Your task to perform on an android device: turn off translation in the chrome app Image 0: 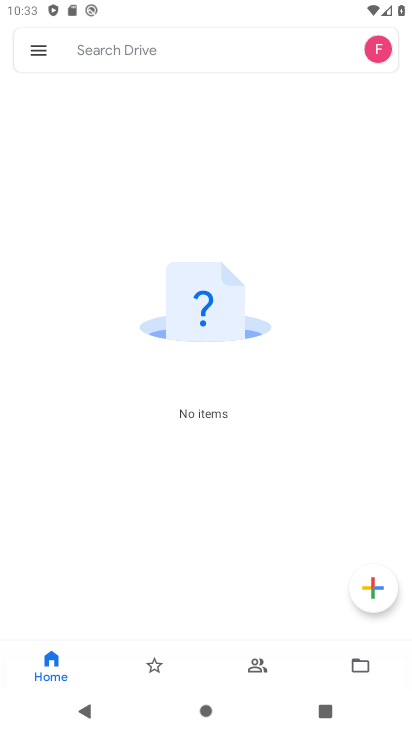
Step 0: press home button
Your task to perform on an android device: turn off translation in the chrome app Image 1: 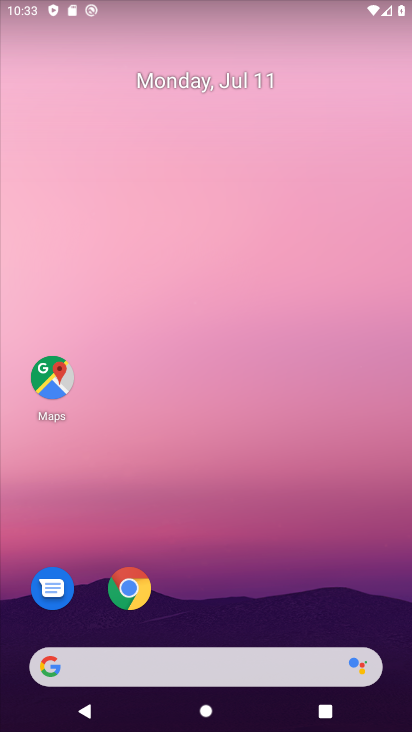
Step 1: click (132, 590)
Your task to perform on an android device: turn off translation in the chrome app Image 2: 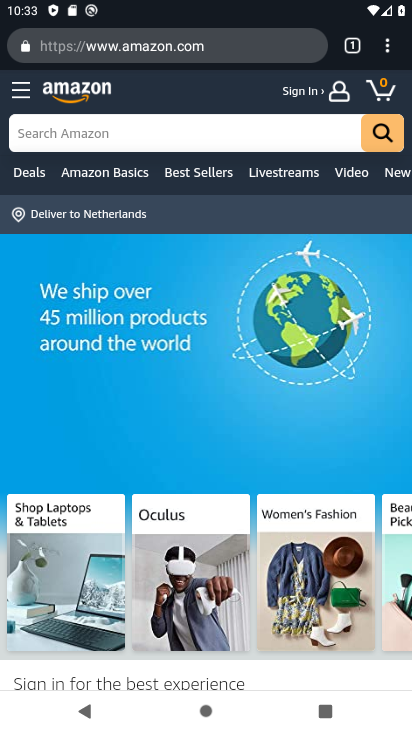
Step 2: click (387, 43)
Your task to perform on an android device: turn off translation in the chrome app Image 3: 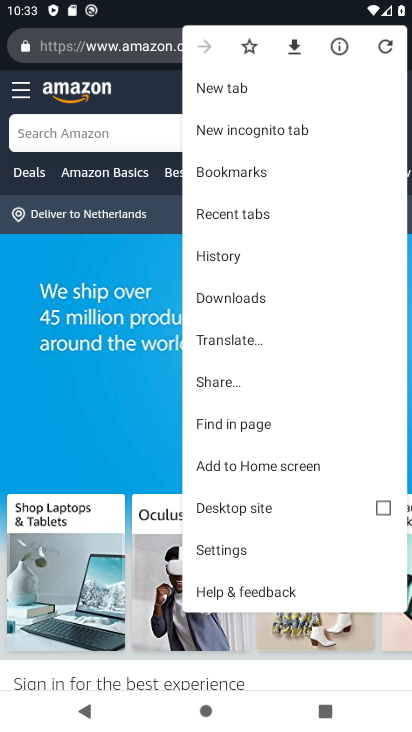
Step 3: click (226, 545)
Your task to perform on an android device: turn off translation in the chrome app Image 4: 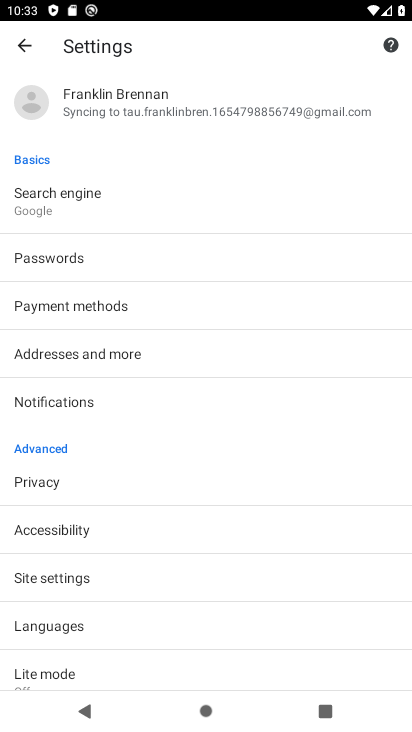
Step 4: click (55, 623)
Your task to perform on an android device: turn off translation in the chrome app Image 5: 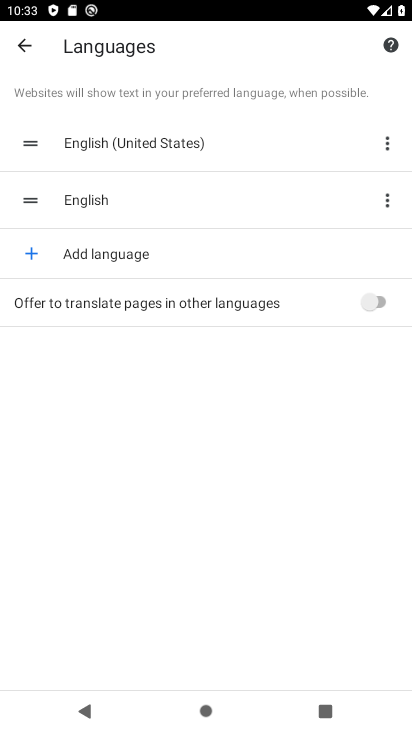
Step 5: task complete